Your task to perform on an android device: Go to Google Image 0: 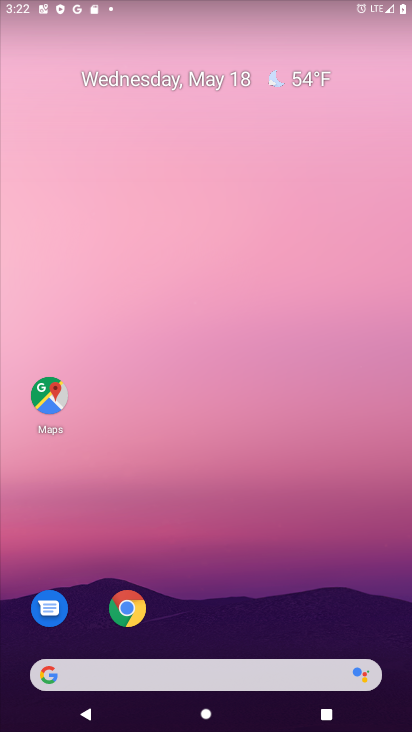
Step 0: drag from (290, 618) to (368, 11)
Your task to perform on an android device: Go to Google Image 1: 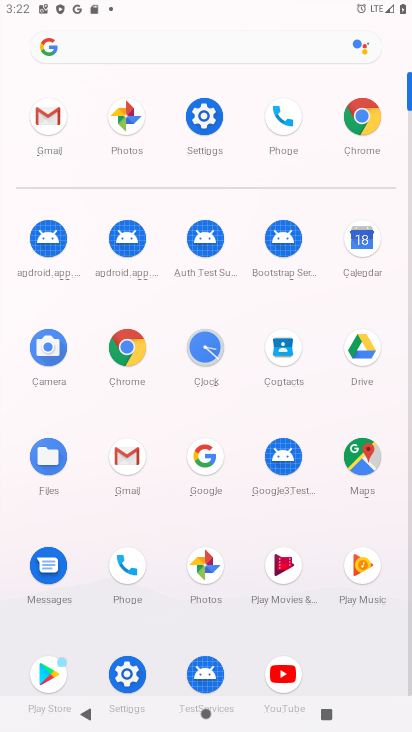
Step 1: click (207, 466)
Your task to perform on an android device: Go to Google Image 2: 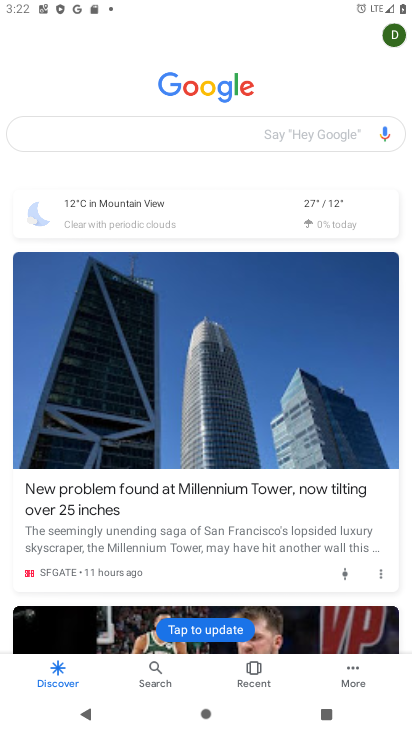
Step 2: task complete